Your task to perform on an android device: See recent photos Image 0: 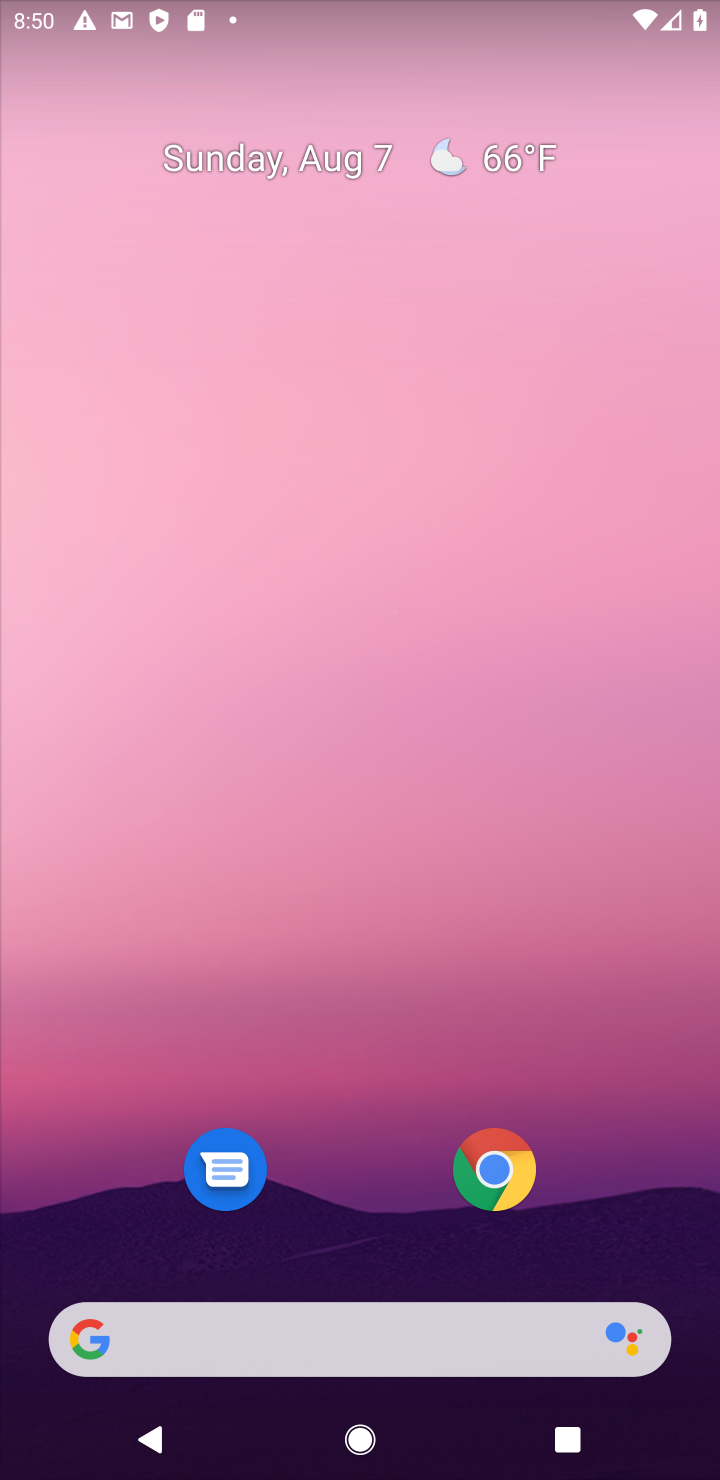
Step 0: drag from (314, 1258) to (582, 463)
Your task to perform on an android device: See recent photos Image 1: 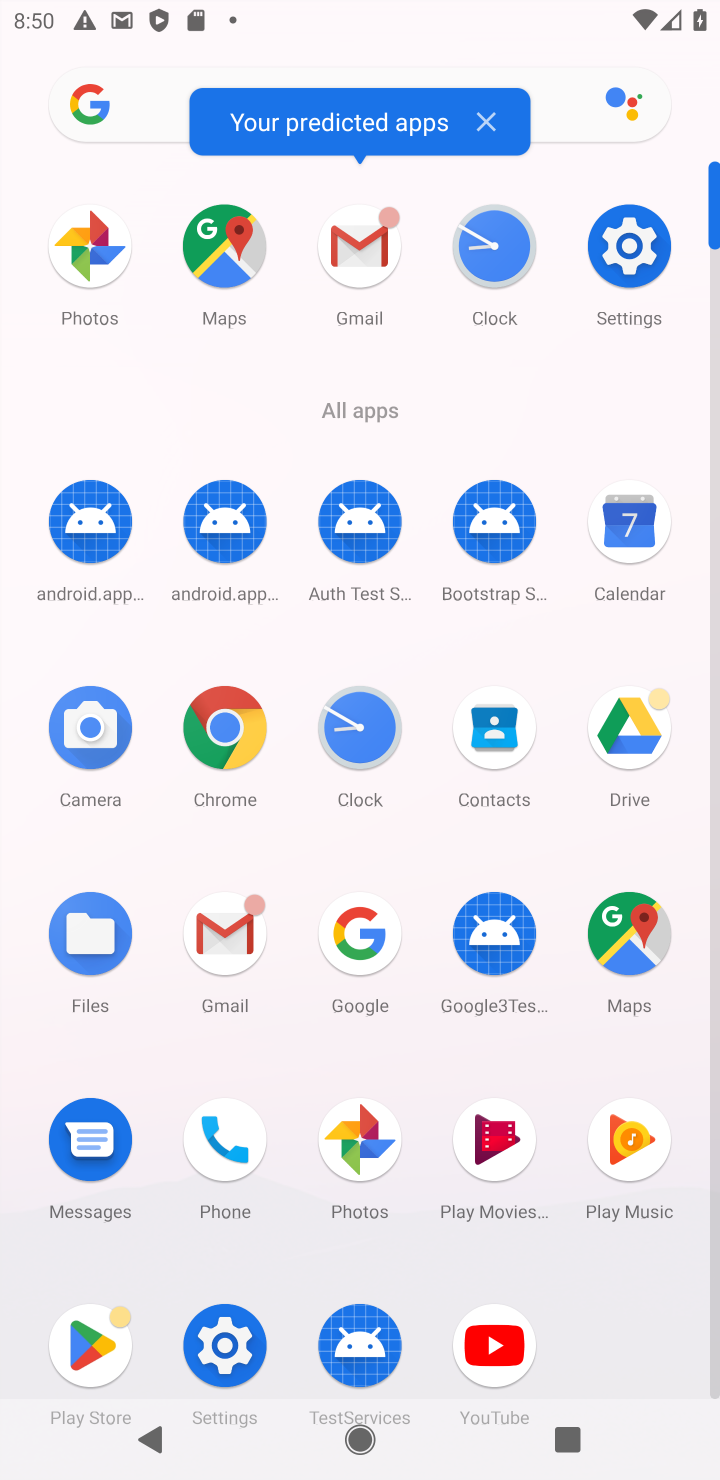
Step 1: click (357, 1188)
Your task to perform on an android device: See recent photos Image 2: 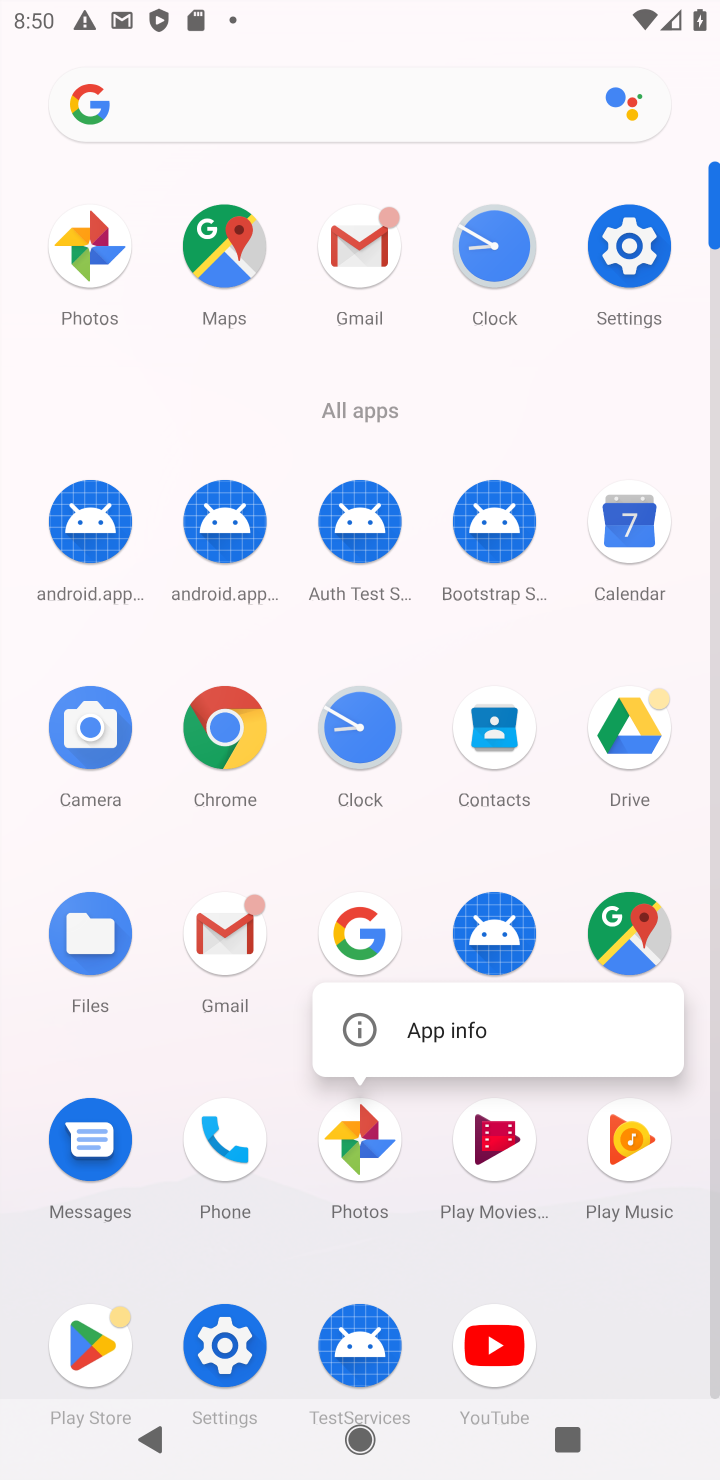
Step 2: click (356, 1159)
Your task to perform on an android device: See recent photos Image 3: 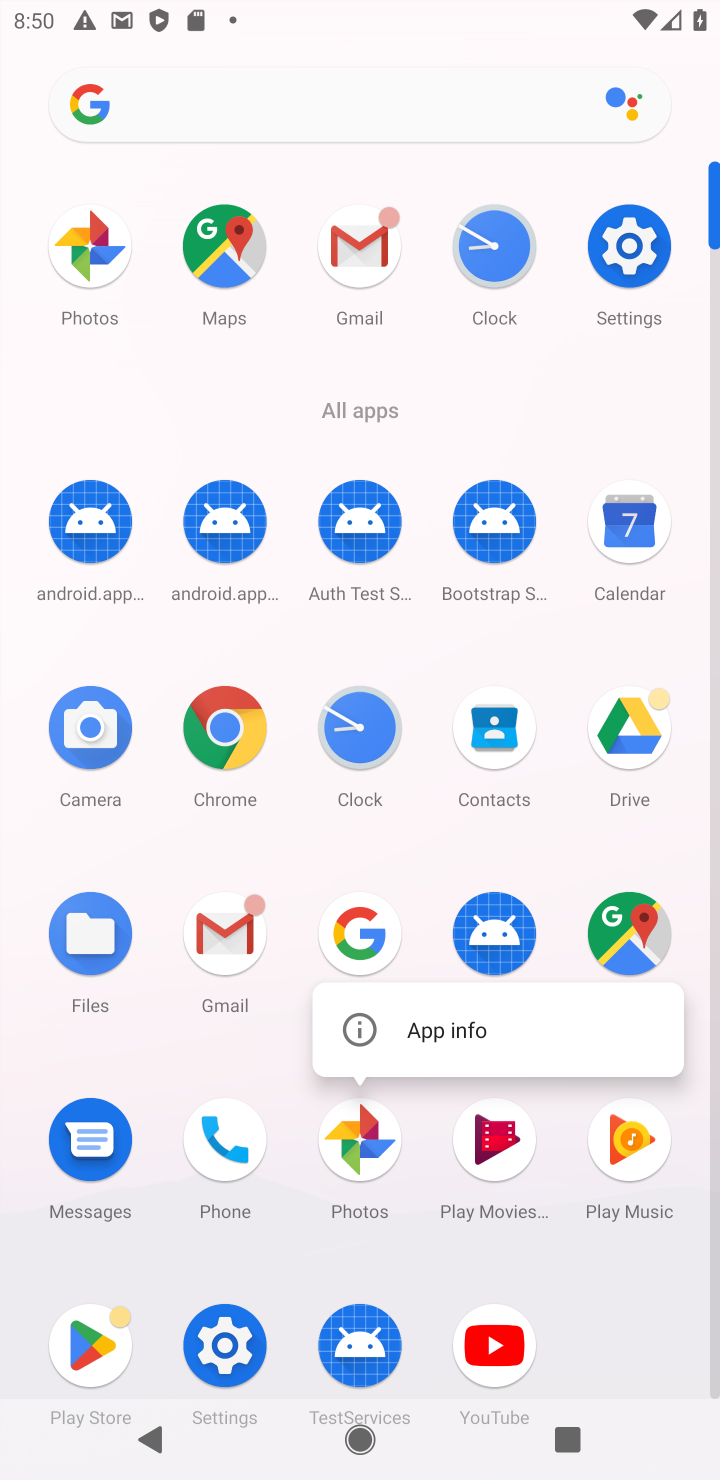
Step 3: click (375, 1170)
Your task to perform on an android device: See recent photos Image 4: 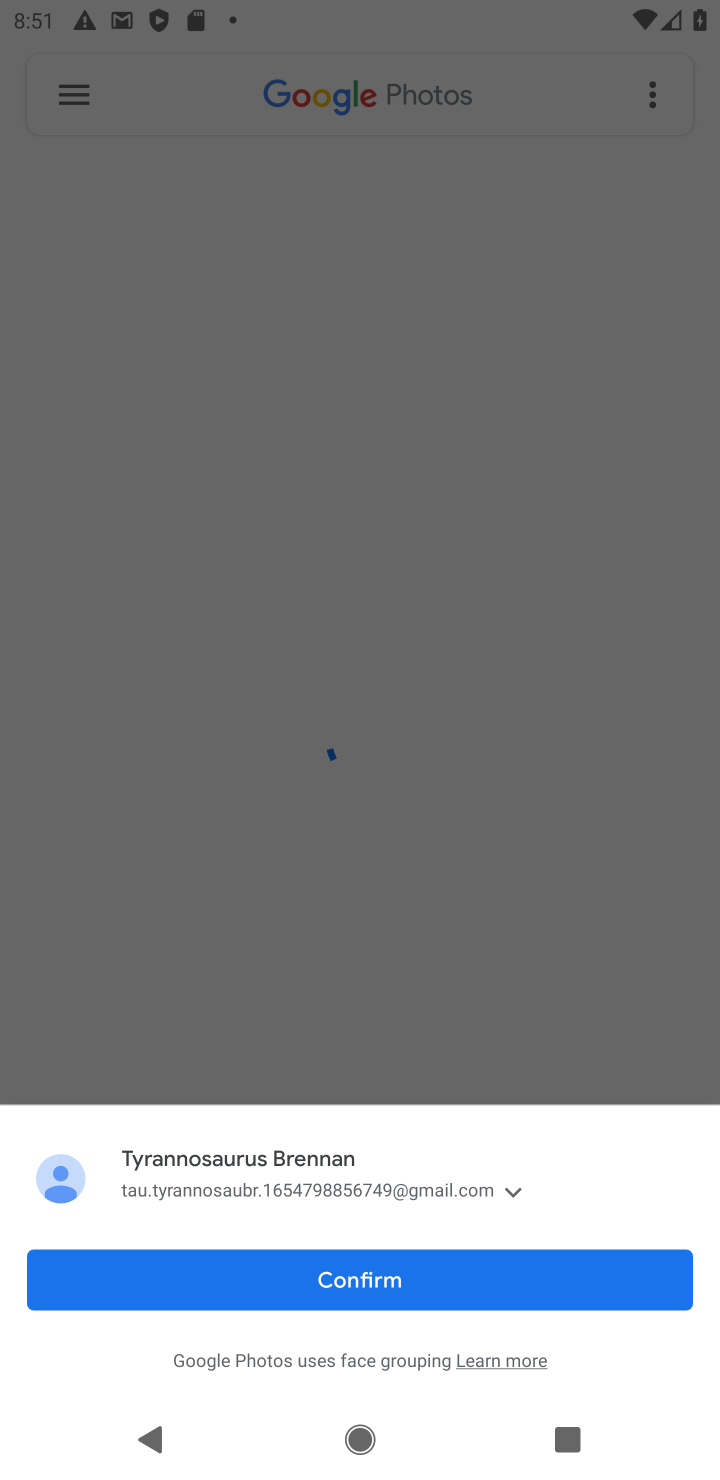
Step 4: click (232, 1296)
Your task to perform on an android device: See recent photos Image 5: 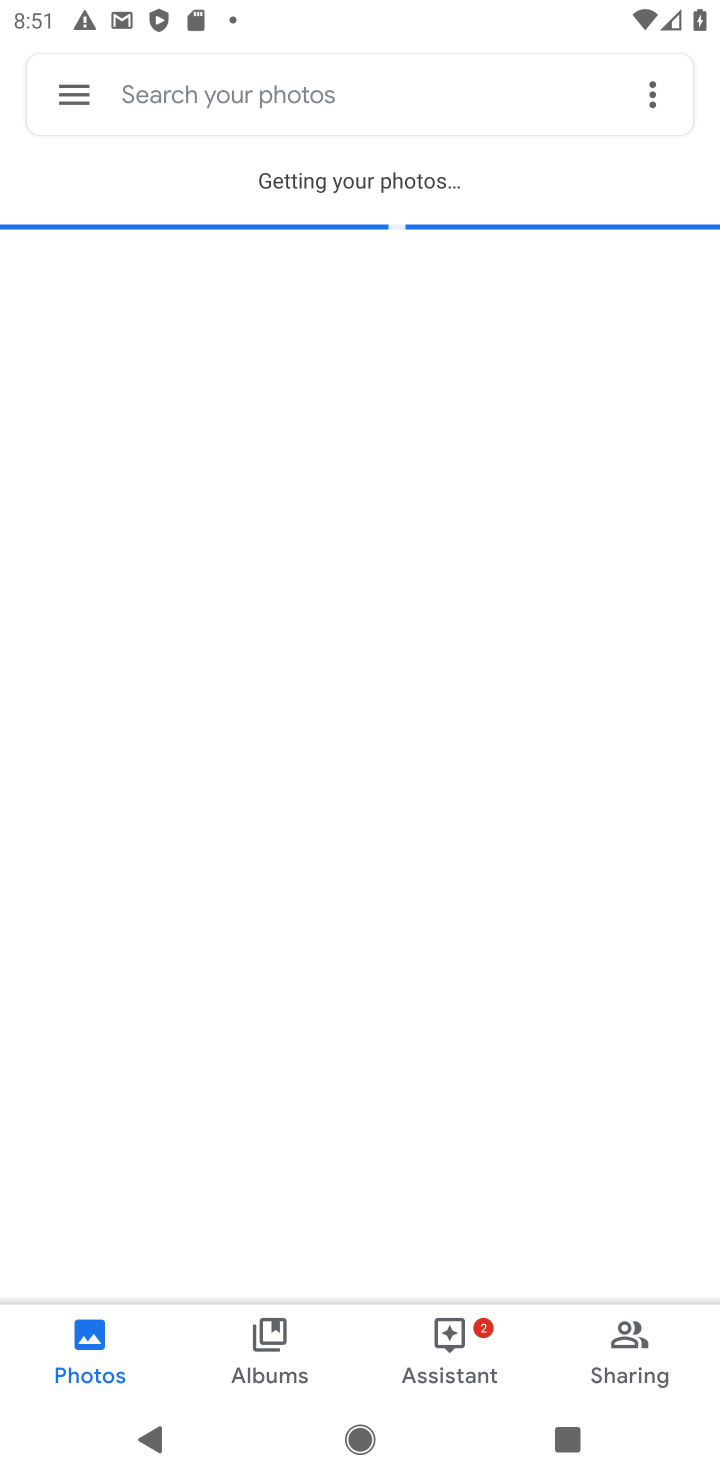
Step 5: task complete